Your task to perform on an android device: When is my next meeting? Image 0: 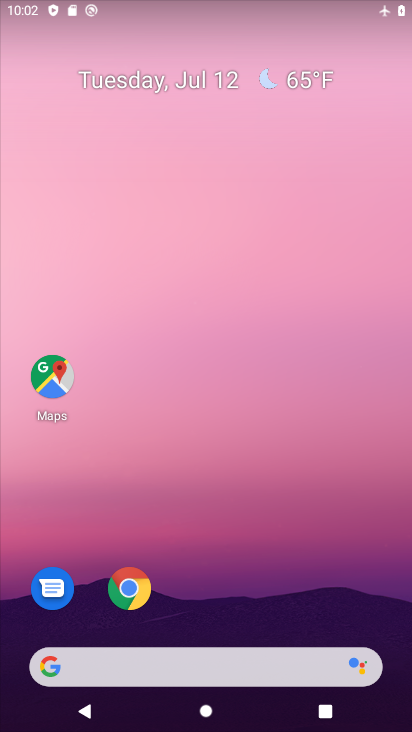
Step 0: drag from (68, 635) to (261, 3)
Your task to perform on an android device: When is my next meeting? Image 1: 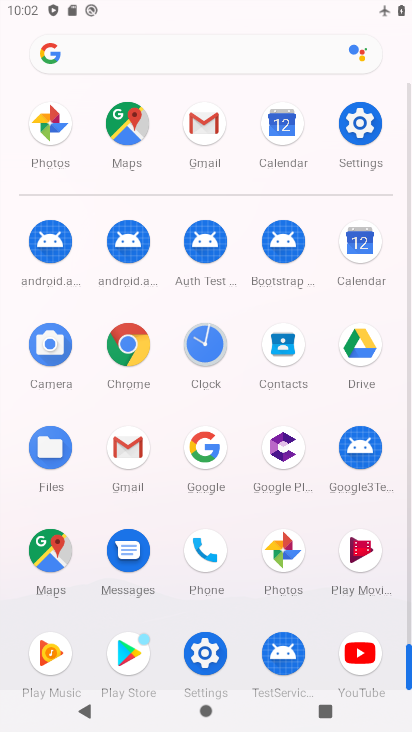
Step 1: click (354, 259)
Your task to perform on an android device: When is my next meeting? Image 2: 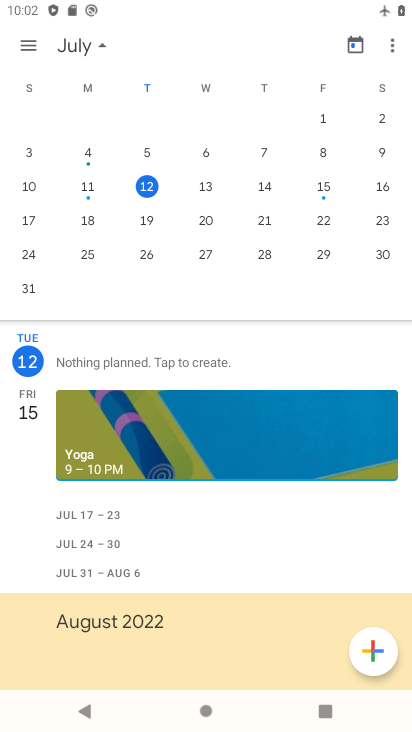
Step 2: click (14, 39)
Your task to perform on an android device: When is my next meeting? Image 3: 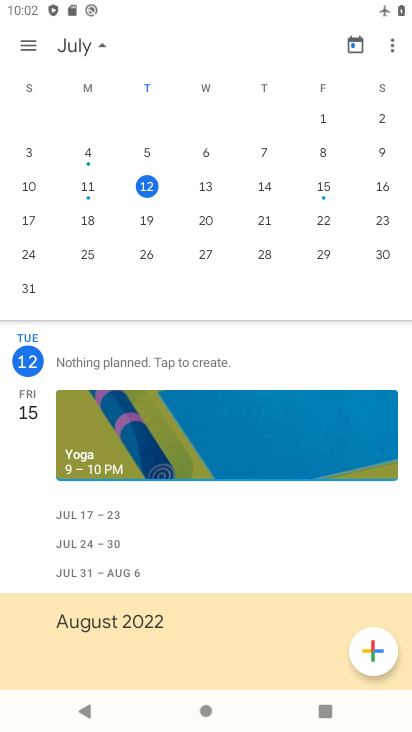
Step 3: click (26, 47)
Your task to perform on an android device: When is my next meeting? Image 4: 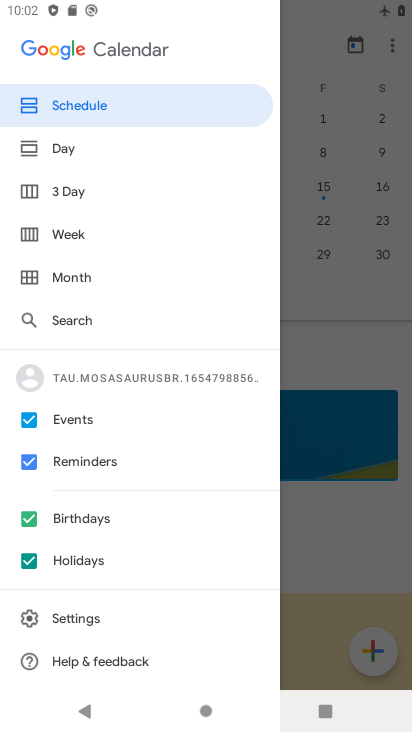
Step 4: click (340, 325)
Your task to perform on an android device: When is my next meeting? Image 5: 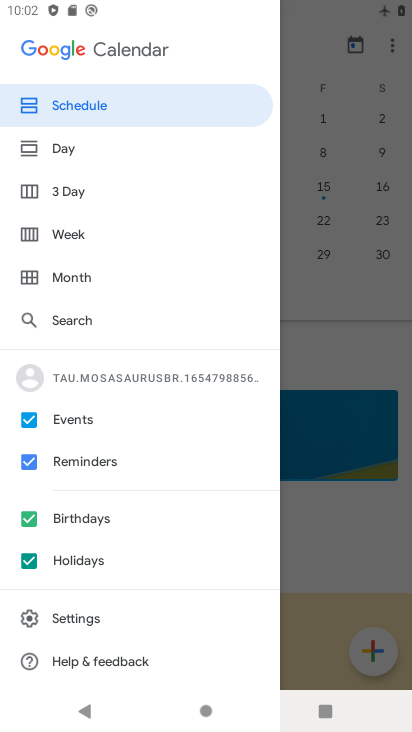
Step 5: task complete